Your task to perform on an android device: Open Reddit.com Image 0: 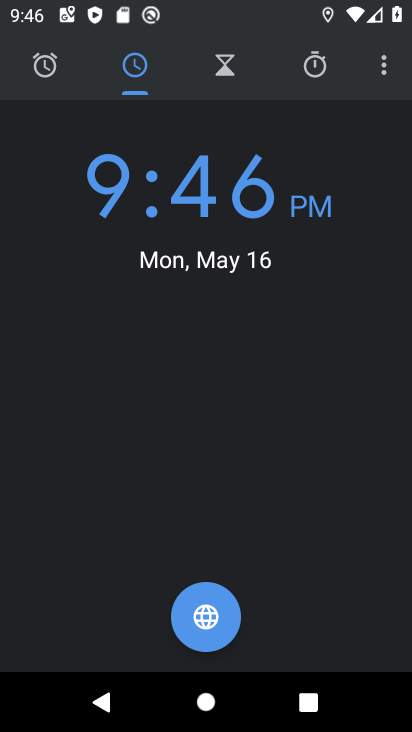
Step 0: press home button
Your task to perform on an android device: Open Reddit.com Image 1: 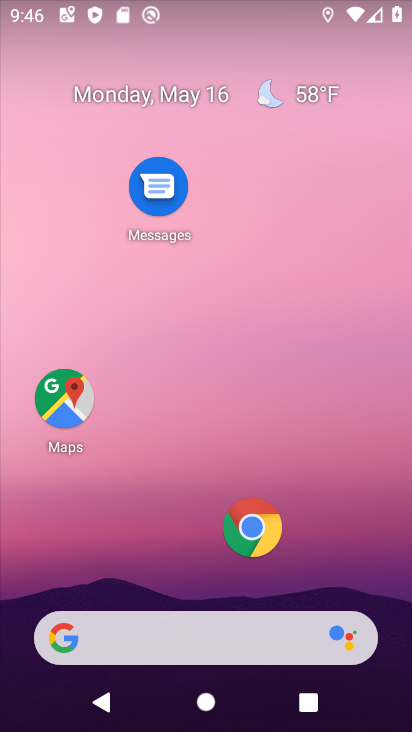
Step 1: drag from (159, 556) to (200, 98)
Your task to perform on an android device: Open Reddit.com Image 2: 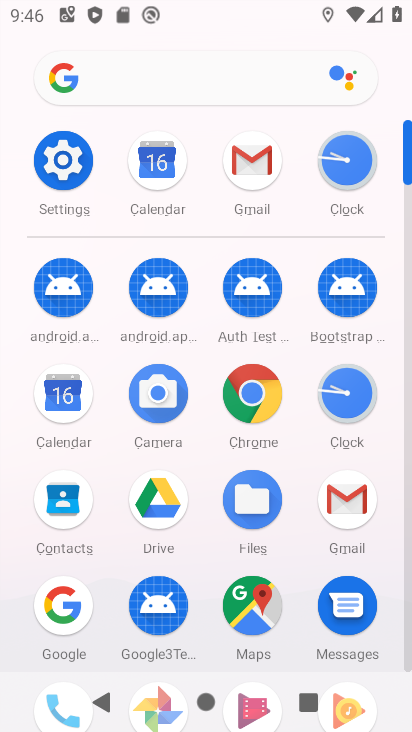
Step 2: click (62, 610)
Your task to perform on an android device: Open Reddit.com Image 3: 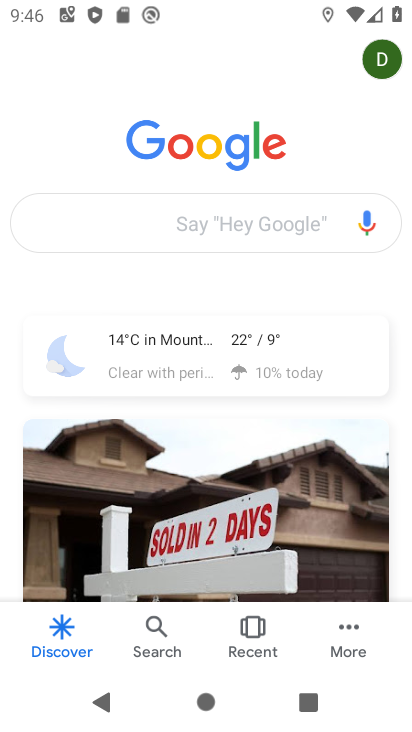
Step 3: click (166, 221)
Your task to perform on an android device: Open Reddit.com Image 4: 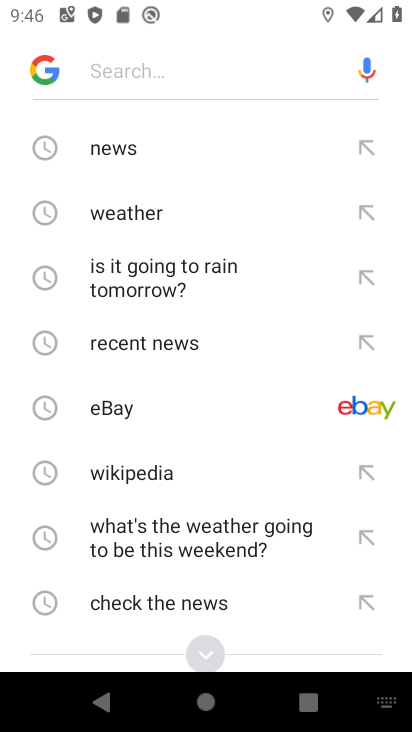
Step 4: drag from (241, 528) to (286, 179)
Your task to perform on an android device: Open Reddit.com Image 5: 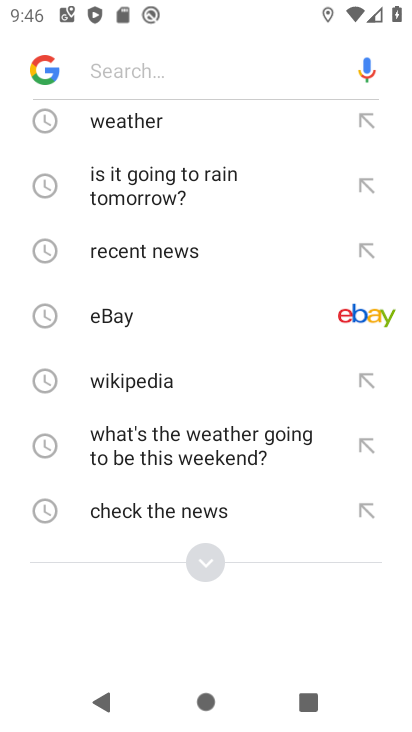
Step 5: click (202, 559)
Your task to perform on an android device: Open Reddit.com Image 6: 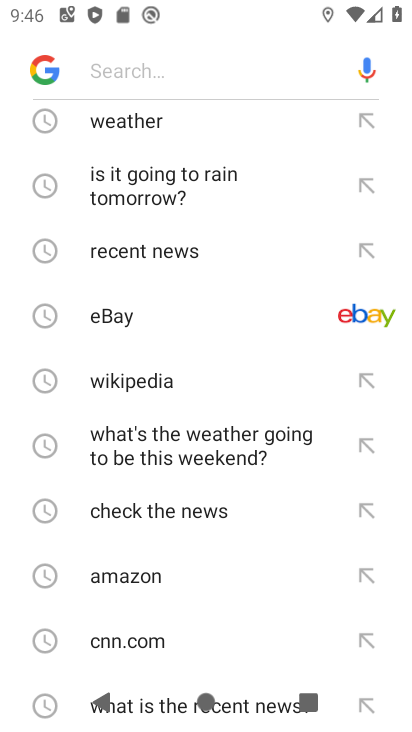
Step 6: drag from (247, 560) to (258, 173)
Your task to perform on an android device: Open Reddit.com Image 7: 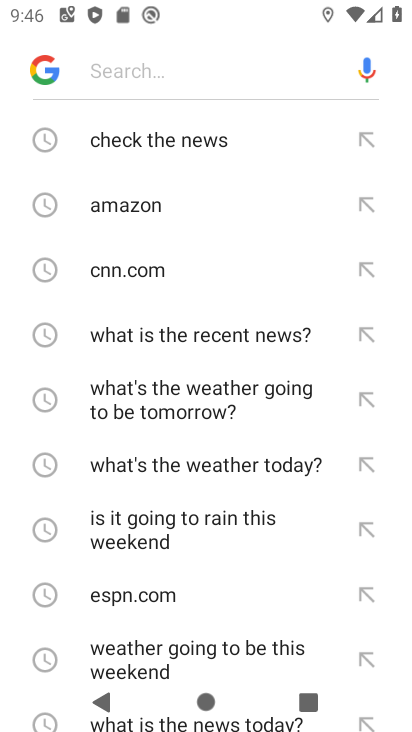
Step 7: drag from (212, 514) to (267, 139)
Your task to perform on an android device: Open Reddit.com Image 8: 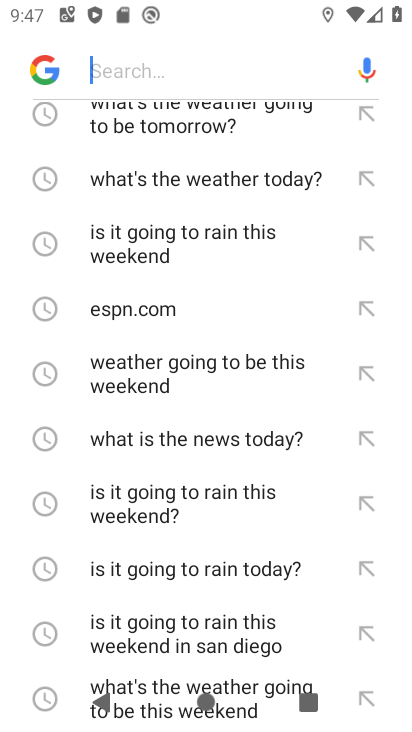
Step 8: type "reddit.com"
Your task to perform on an android device: Open Reddit.com Image 9: 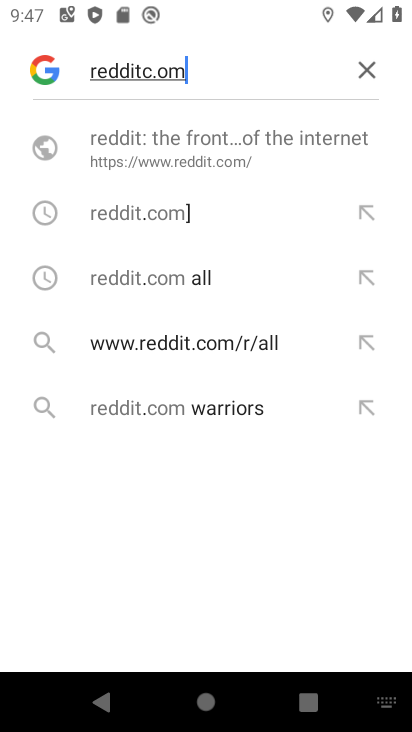
Step 9: click (200, 163)
Your task to perform on an android device: Open Reddit.com Image 10: 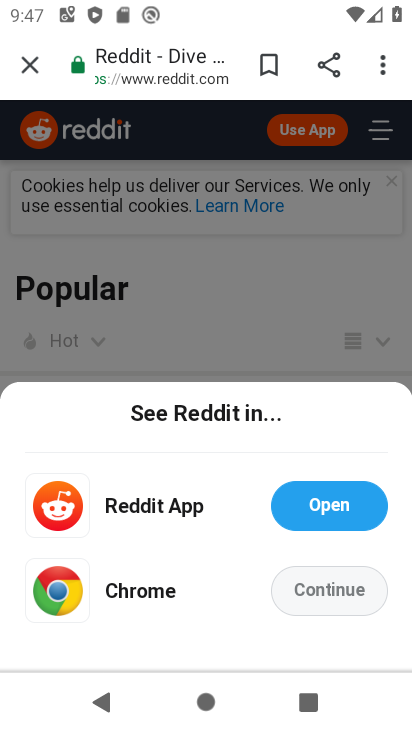
Step 10: task complete